Your task to perform on an android device: Open Amazon Image 0: 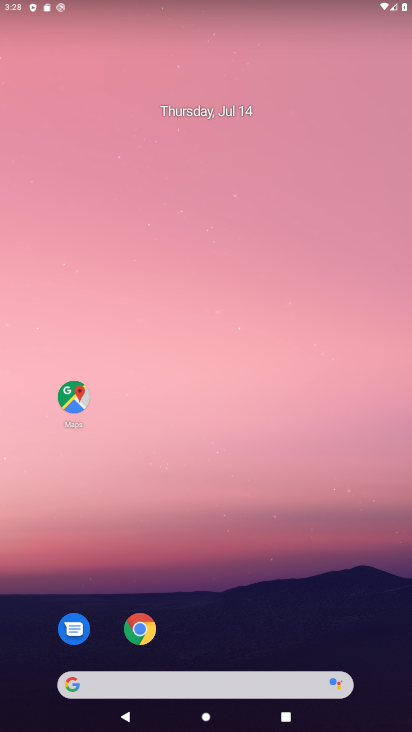
Step 0: press home button
Your task to perform on an android device: Open Amazon Image 1: 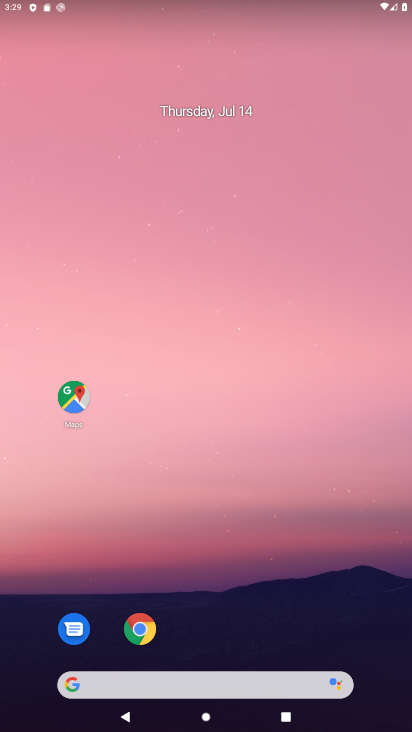
Step 1: drag from (244, 675) to (281, 155)
Your task to perform on an android device: Open Amazon Image 2: 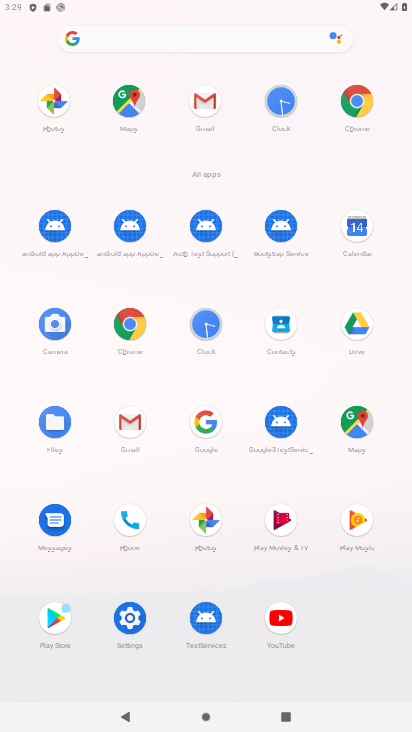
Step 2: click (358, 96)
Your task to perform on an android device: Open Amazon Image 3: 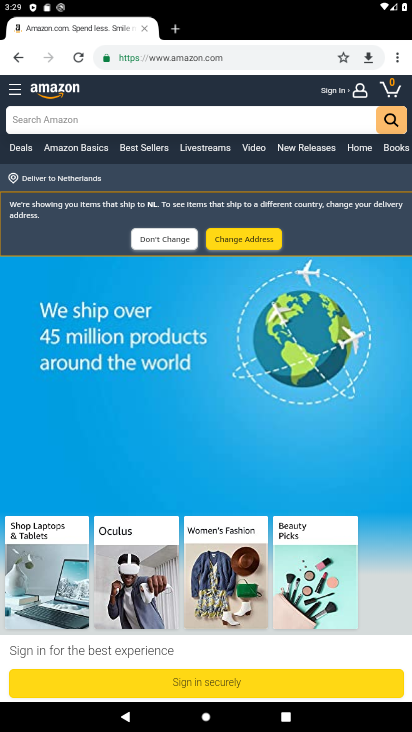
Step 3: task complete